Your task to perform on an android device: search for starred emails in the gmail app Image 0: 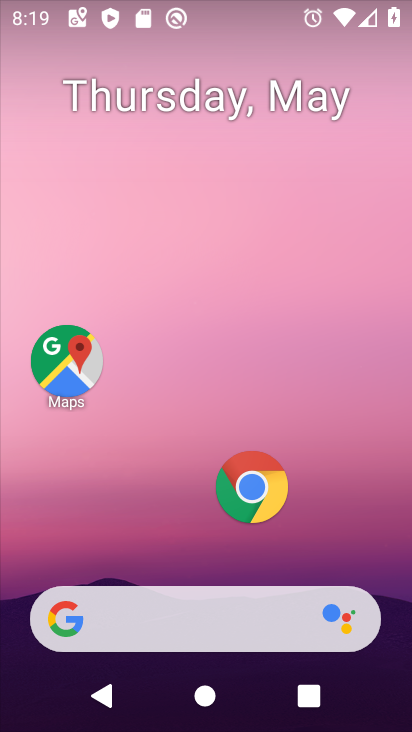
Step 0: click (155, 99)
Your task to perform on an android device: search for starred emails in the gmail app Image 1: 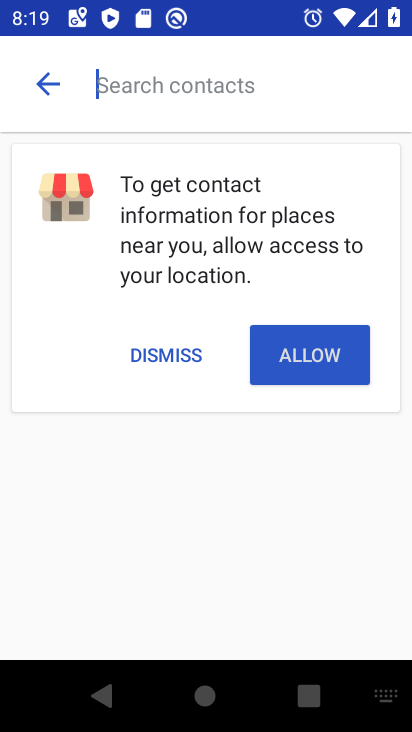
Step 1: press back button
Your task to perform on an android device: search for starred emails in the gmail app Image 2: 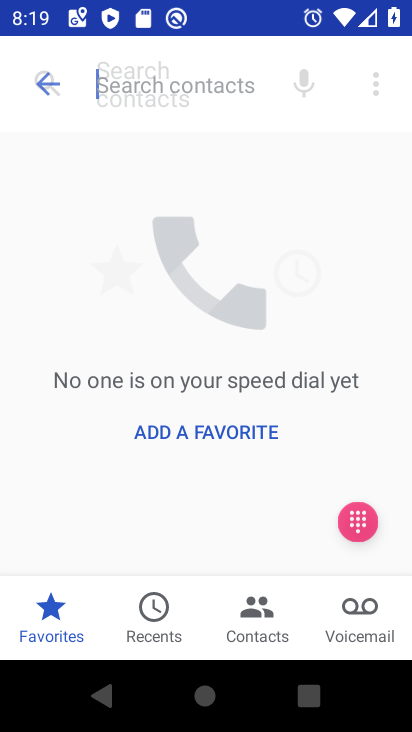
Step 2: press back button
Your task to perform on an android device: search for starred emails in the gmail app Image 3: 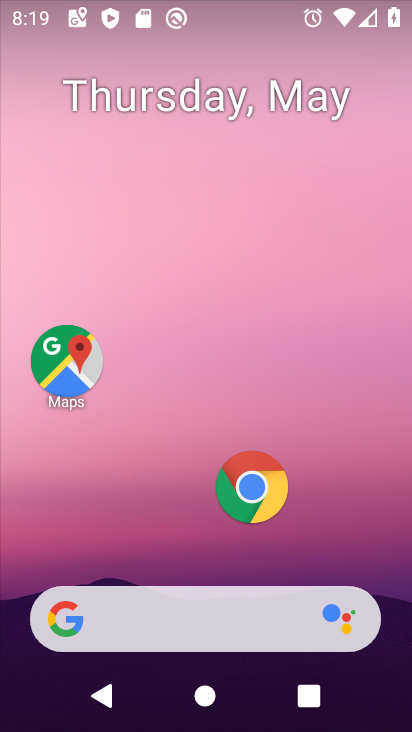
Step 3: drag from (264, 718) to (120, 186)
Your task to perform on an android device: search for starred emails in the gmail app Image 4: 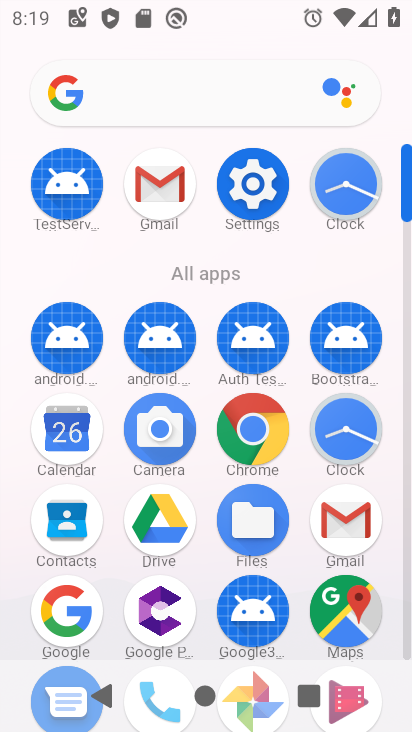
Step 4: click (324, 506)
Your task to perform on an android device: search for starred emails in the gmail app Image 5: 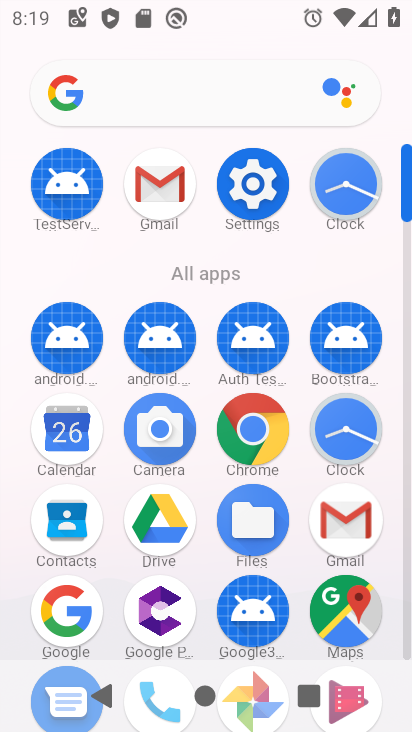
Step 5: click (326, 505)
Your task to perform on an android device: search for starred emails in the gmail app Image 6: 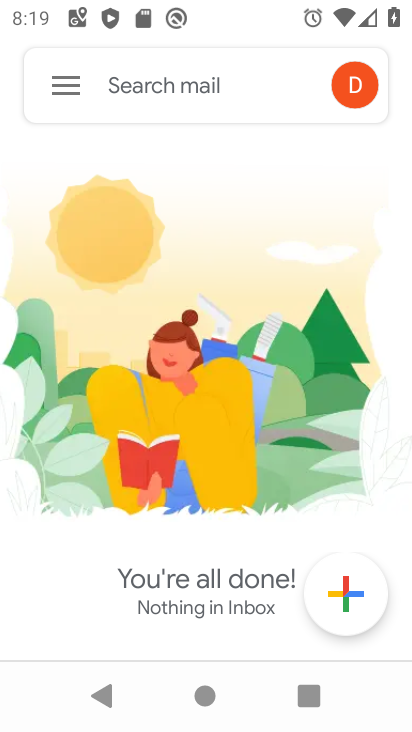
Step 6: click (64, 92)
Your task to perform on an android device: search for starred emails in the gmail app Image 7: 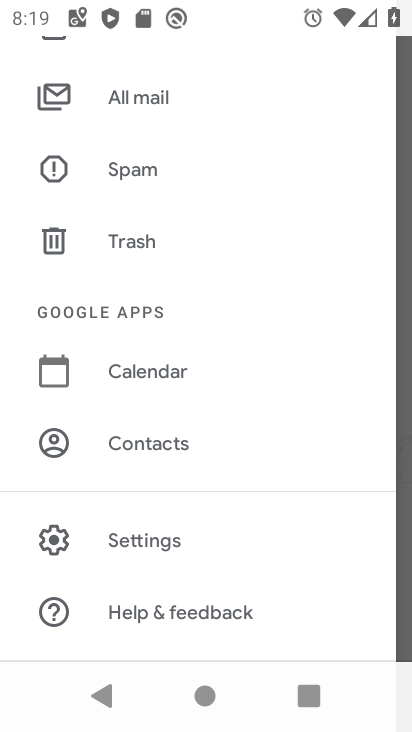
Step 7: drag from (173, 145) to (173, 538)
Your task to perform on an android device: search for starred emails in the gmail app Image 8: 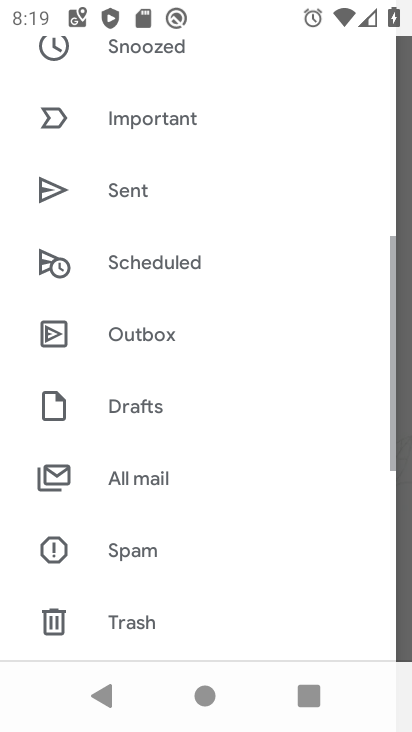
Step 8: drag from (139, 307) to (169, 544)
Your task to perform on an android device: search for starred emails in the gmail app Image 9: 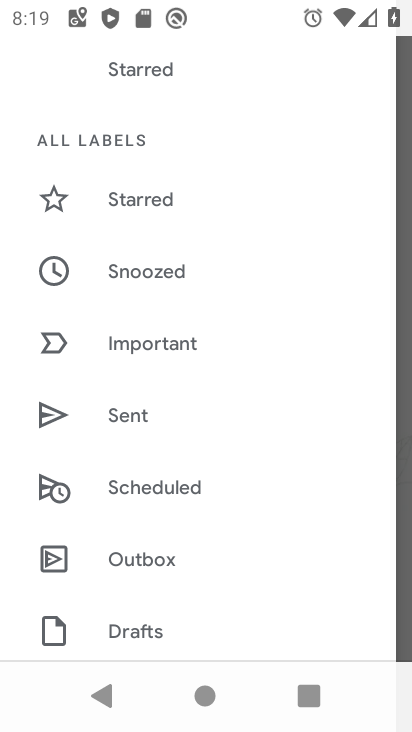
Step 9: click (131, 196)
Your task to perform on an android device: search for starred emails in the gmail app Image 10: 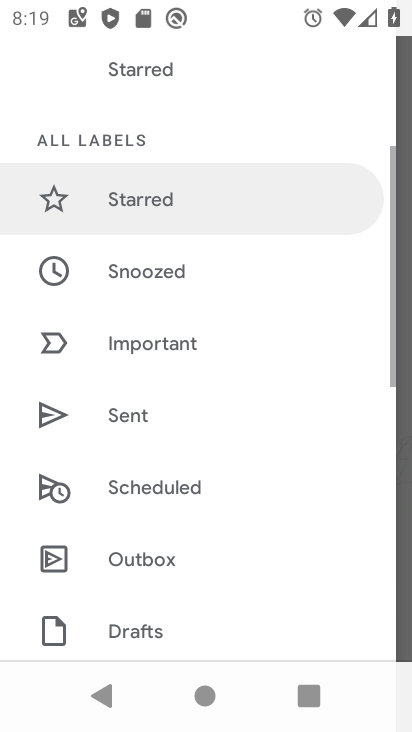
Step 10: click (132, 196)
Your task to perform on an android device: search for starred emails in the gmail app Image 11: 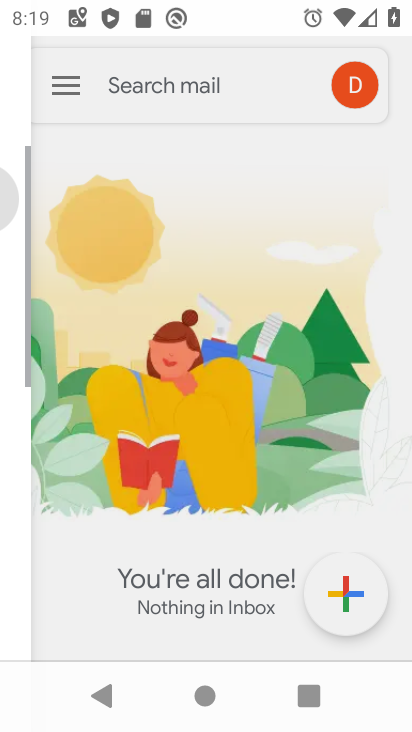
Step 11: click (132, 196)
Your task to perform on an android device: search for starred emails in the gmail app Image 12: 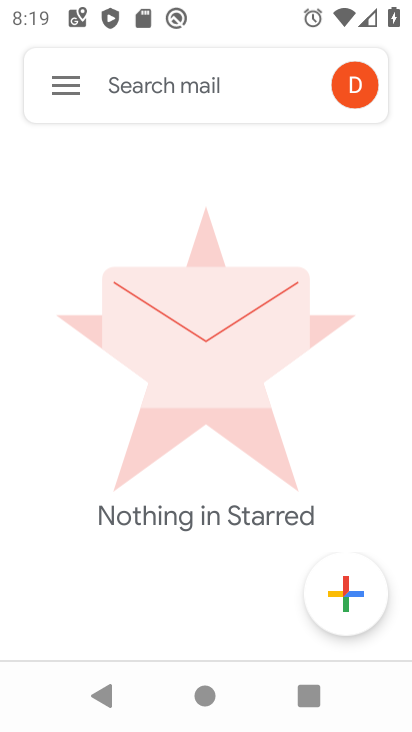
Step 12: click (132, 196)
Your task to perform on an android device: search for starred emails in the gmail app Image 13: 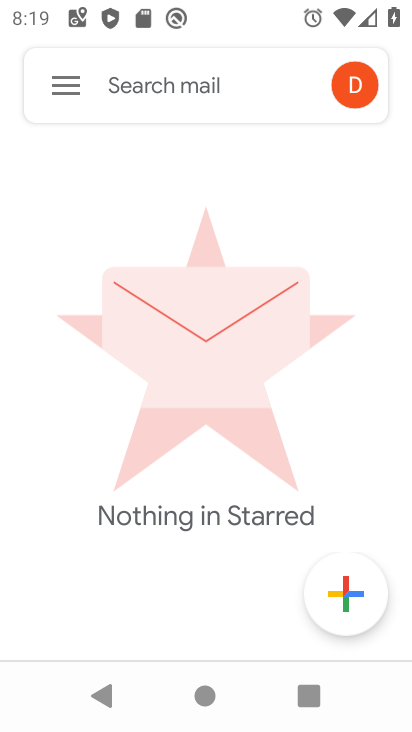
Step 13: task complete